Your task to perform on an android device: What's the news about the US president? Image 0: 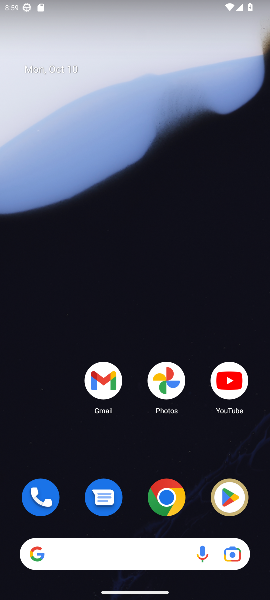
Step 0: drag from (120, 521) to (156, 260)
Your task to perform on an android device: What's the news about the US president? Image 1: 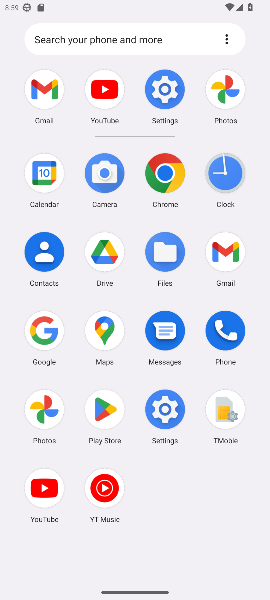
Step 1: click (40, 327)
Your task to perform on an android device: What's the news about the US president? Image 2: 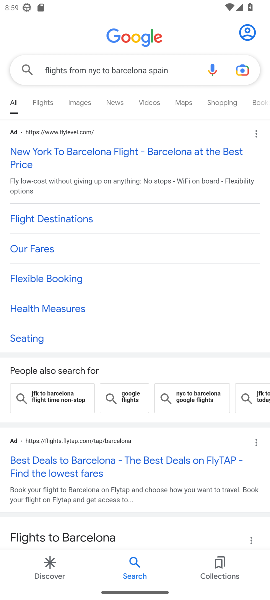
Step 2: click (176, 69)
Your task to perform on an android device: What's the news about the US president? Image 3: 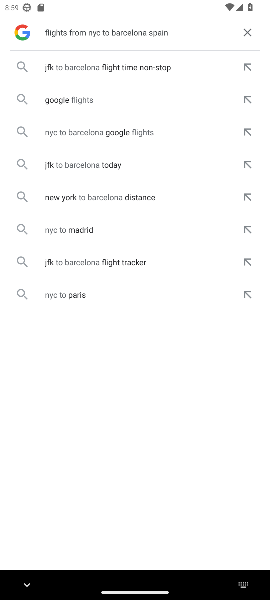
Step 3: click (255, 31)
Your task to perform on an android device: What's the news about the US president? Image 4: 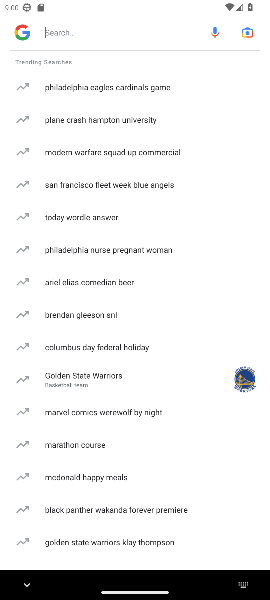
Step 4: click (68, 25)
Your task to perform on an android device: What's the news about the US president? Image 5: 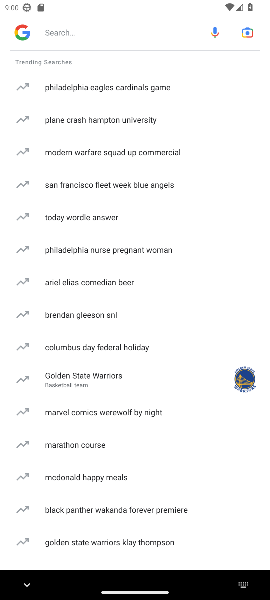
Step 5: type "What's the news about the US president? "
Your task to perform on an android device: What's the news about the US president? Image 6: 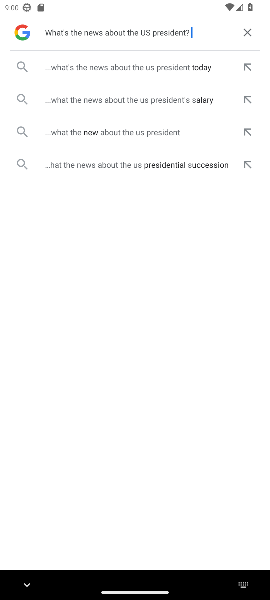
Step 6: click (136, 68)
Your task to perform on an android device: What's the news about the US president? Image 7: 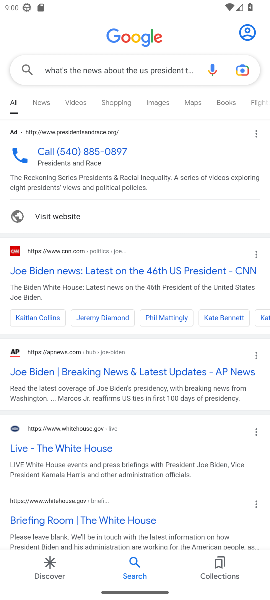
Step 7: click (81, 266)
Your task to perform on an android device: What's the news about the US president? Image 8: 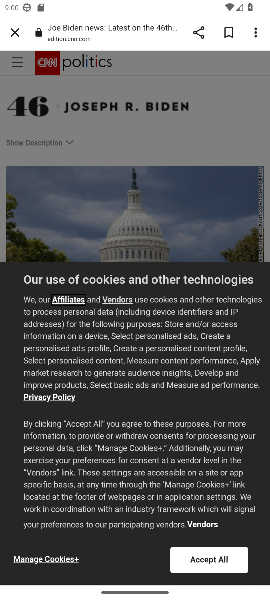
Step 8: click (203, 566)
Your task to perform on an android device: What's the news about the US president? Image 9: 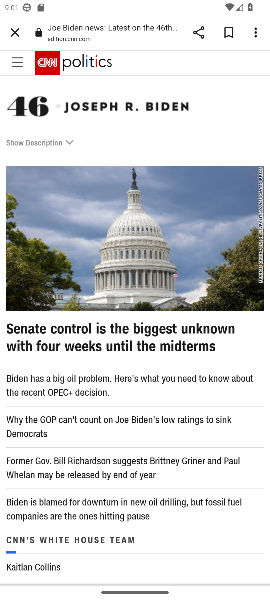
Step 9: drag from (166, 513) to (185, 253)
Your task to perform on an android device: What's the news about the US president? Image 10: 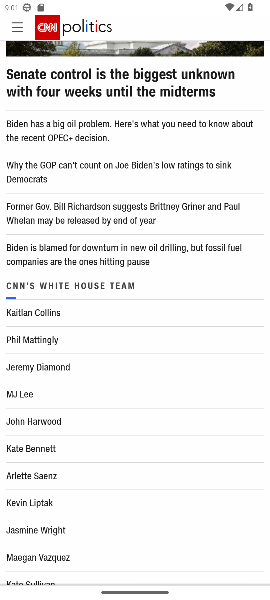
Step 10: press back button
Your task to perform on an android device: What's the news about the US president? Image 11: 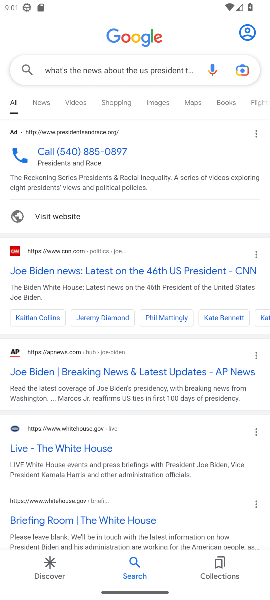
Step 11: click (114, 371)
Your task to perform on an android device: What's the news about the US president? Image 12: 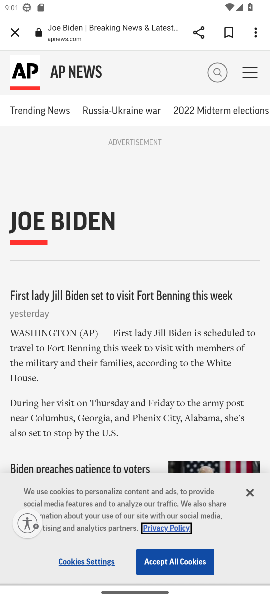
Step 12: task complete